Your task to perform on an android device: add a contact in the contacts app Image 0: 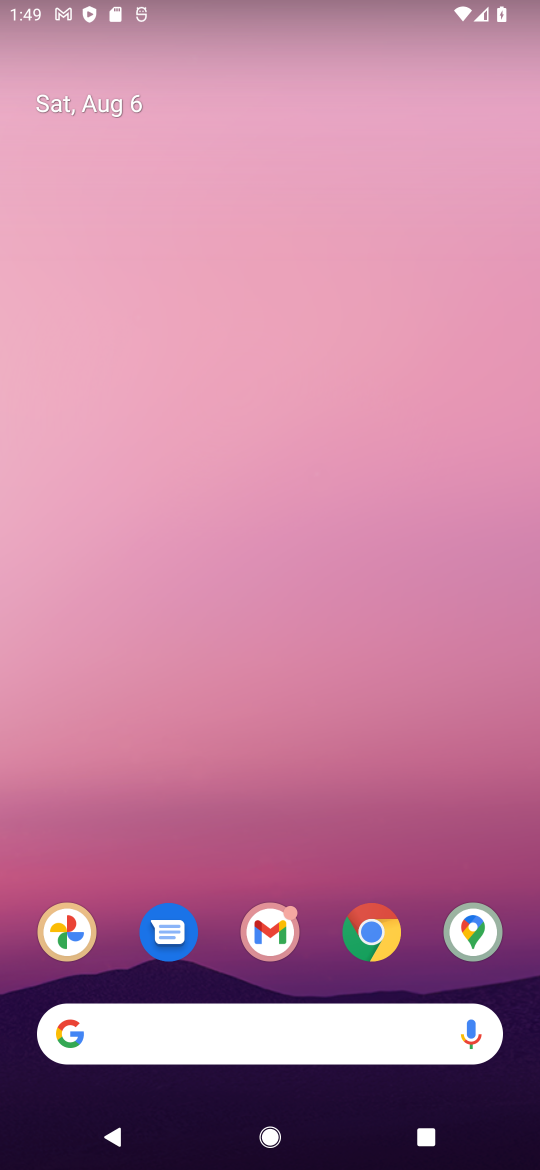
Step 0: click (367, 136)
Your task to perform on an android device: add a contact in the contacts app Image 1: 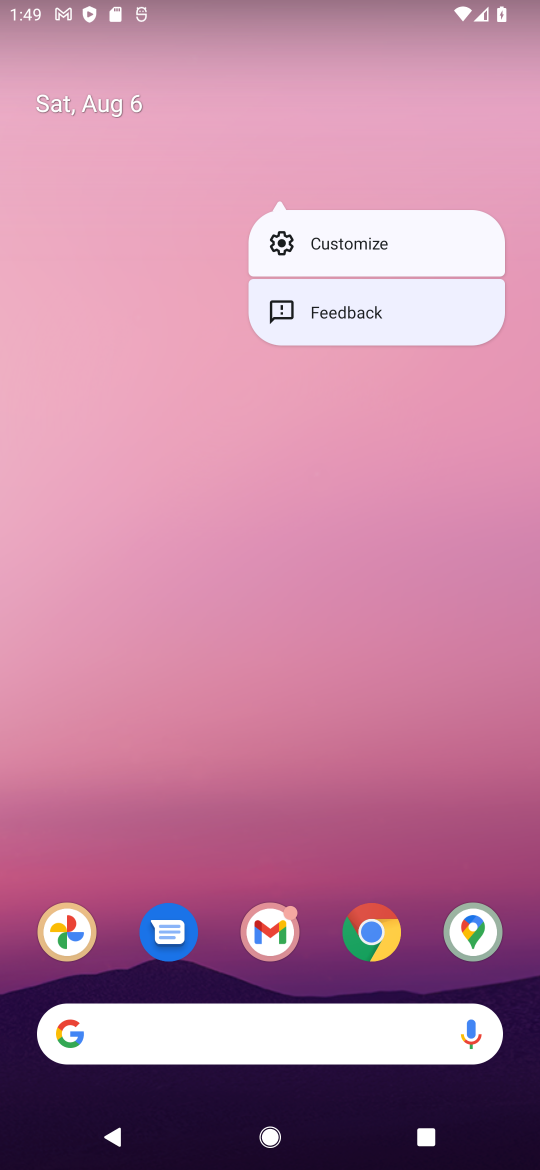
Step 1: click (322, 859)
Your task to perform on an android device: add a contact in the contacts app Image 2: 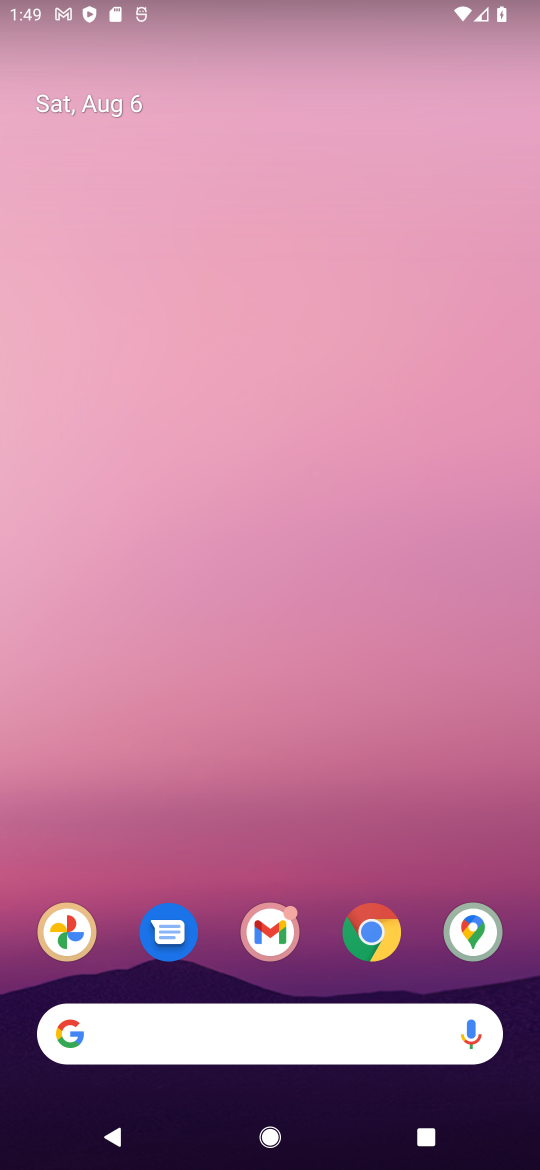
Step 2: drag from (331, 975) to (282, 92)
Your task to perform on an android device: add a contact in the contacts app Image 3: 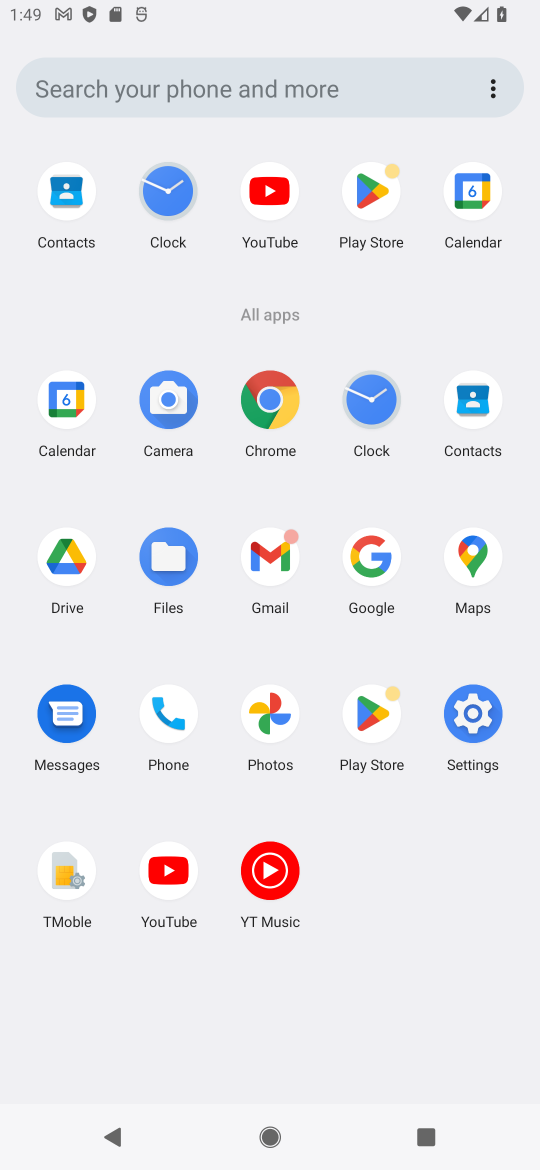
Step 3: click (478, 395)
Your task to perform on an android device: add a contact in the contacts app Image 4: 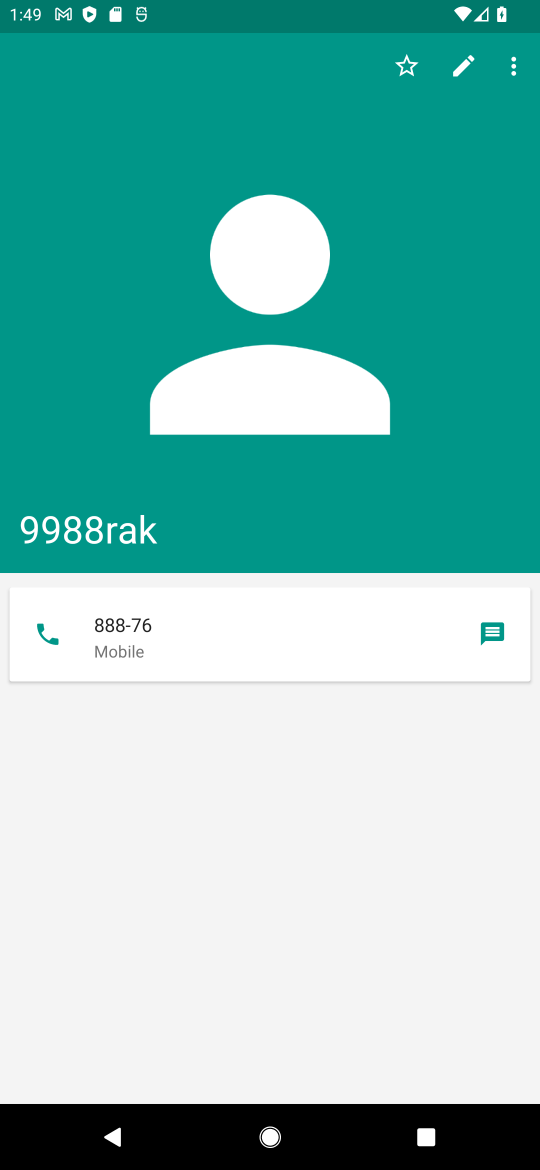
Step 4: press back button
Your task to perform on an android device: add a contact in the contacts app Image 5: 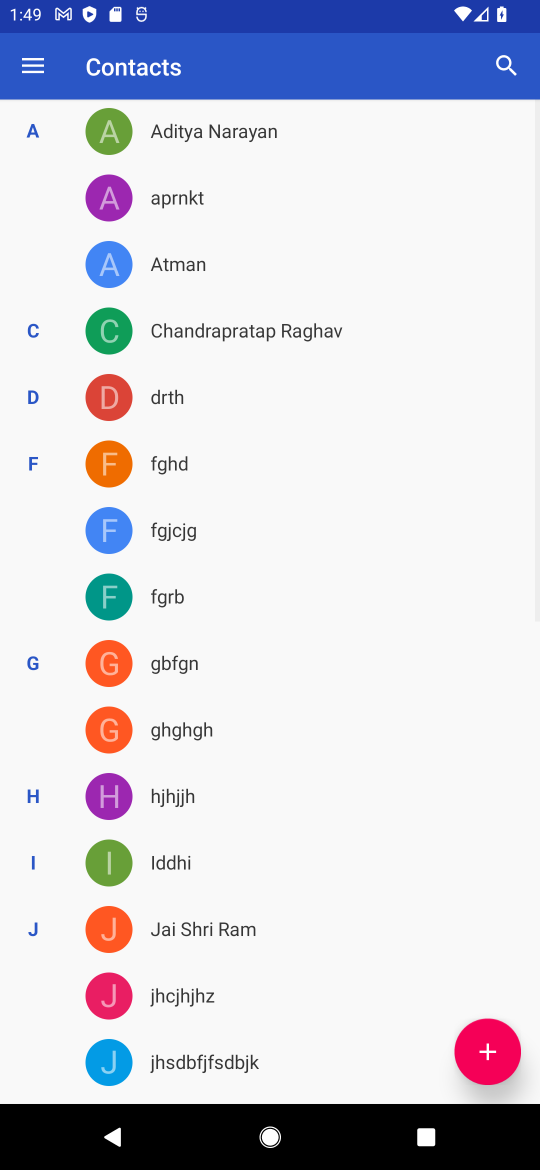
Step 5: click (491, 1045)
Your task to perform on an android device: add a contact in the contacts app Image 6: 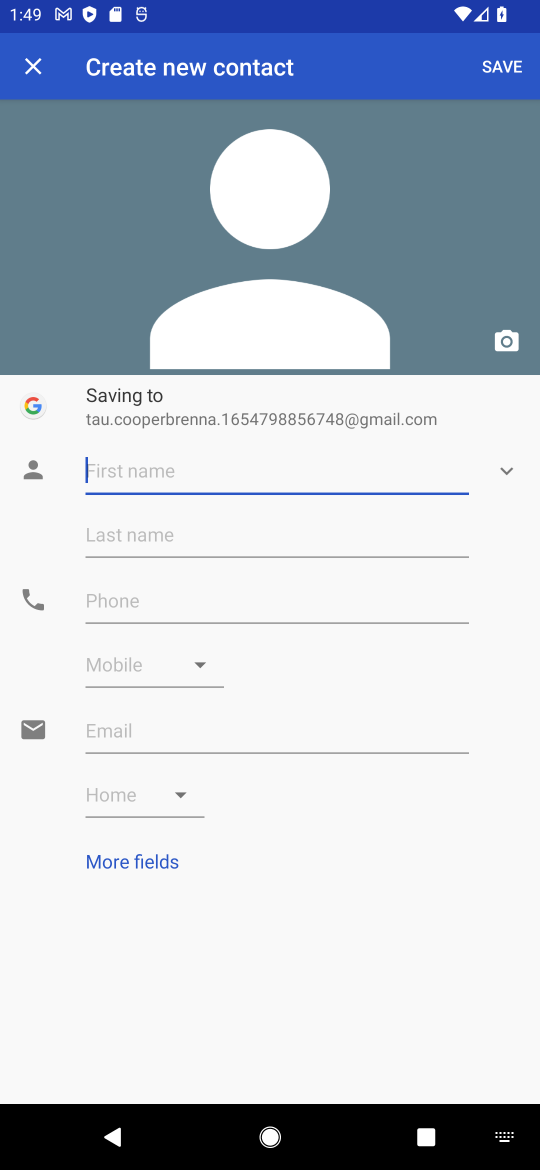
Step 6: type "kkjl"
Your task to perform on an android device: add a contact in the contacts app Image 7: 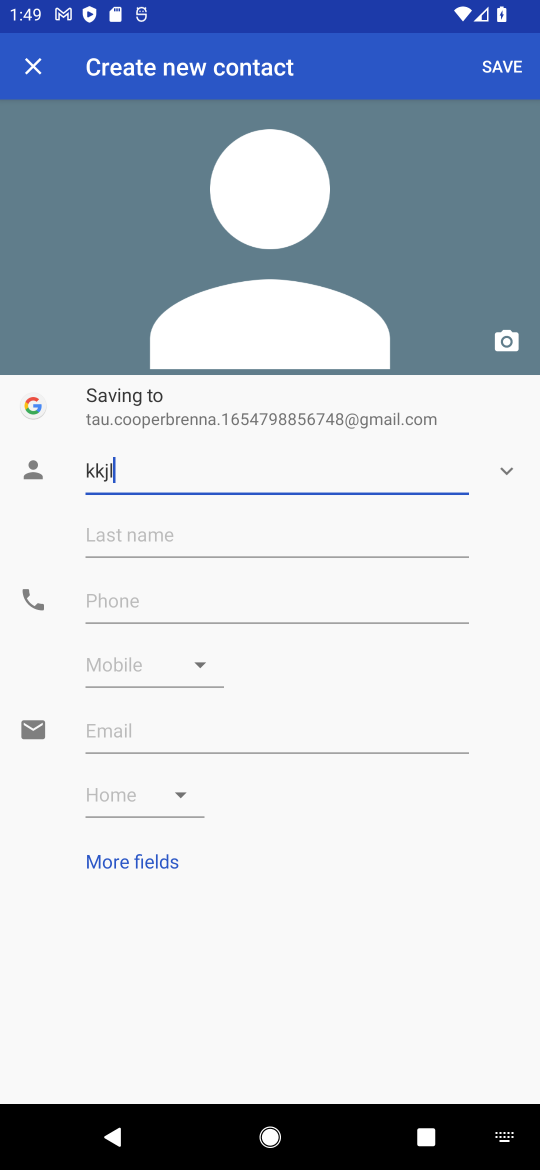
Step 7: click (123, 608)
Your task to perform on an android device: add a contact in the contacts app Image 8: 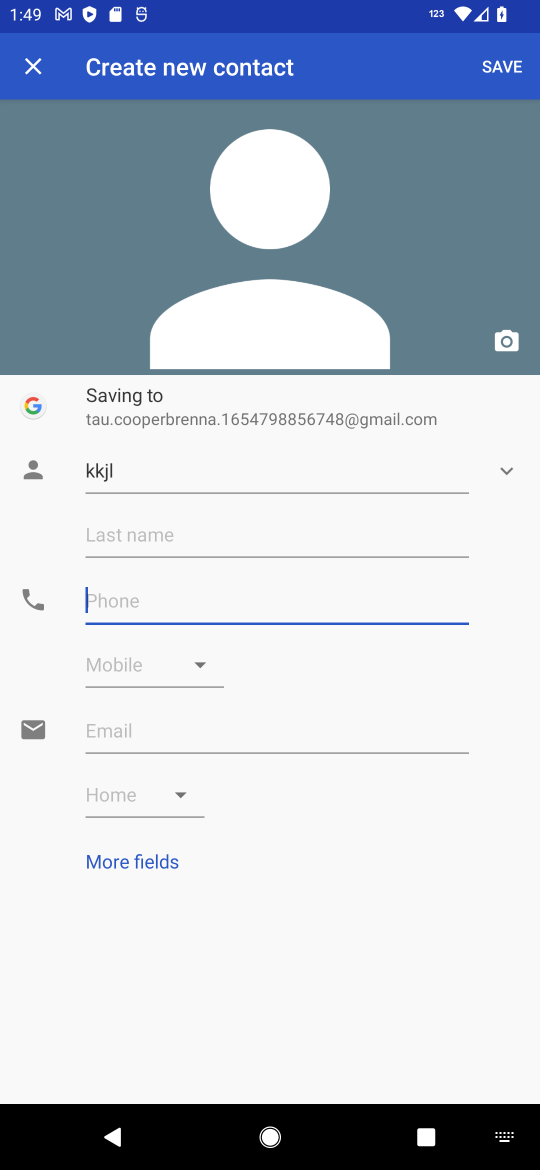
Step 8: type "9980"
Your task to perform on an android device: add a contact in the contacts app Image 9: 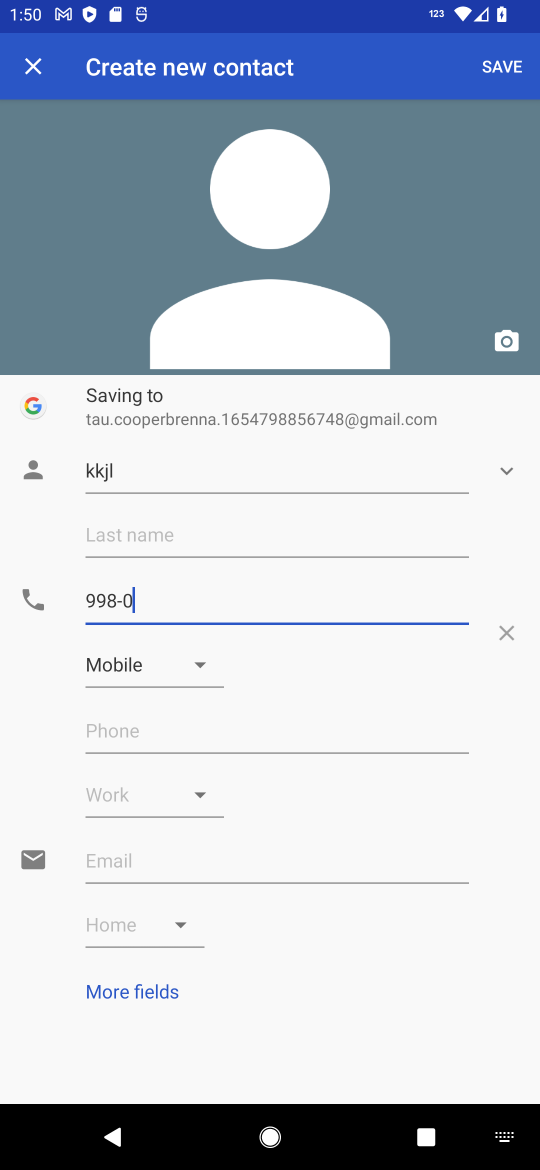
Step 9: click (488, 58)
Your task to perform on an android device: add a contact in the contacts app Image 10: 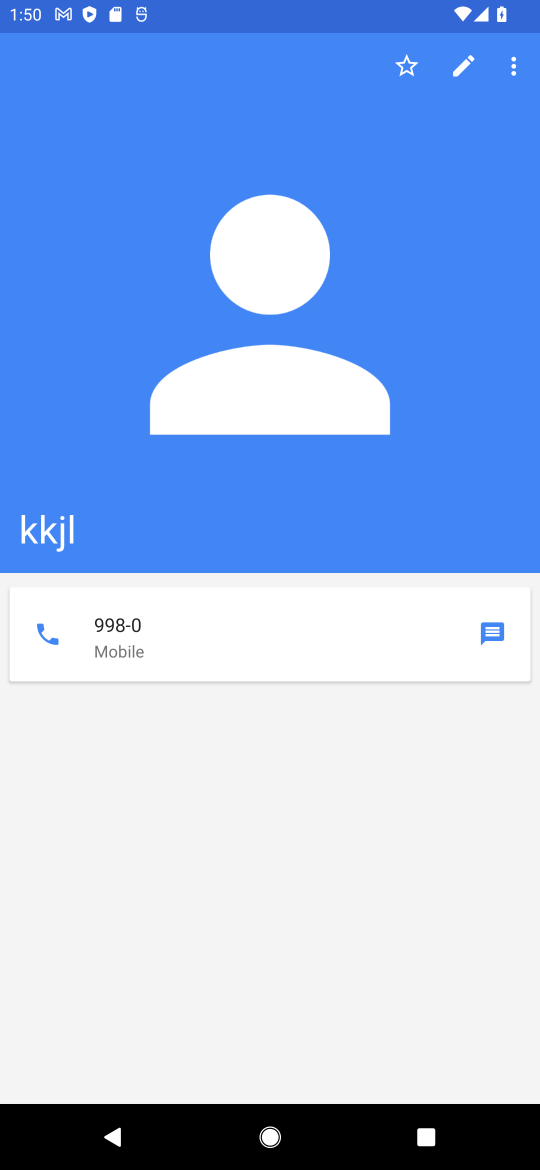
Step 10: task complete